Your task to perform on an android device: delete browsing data in the chrome app Image 0: 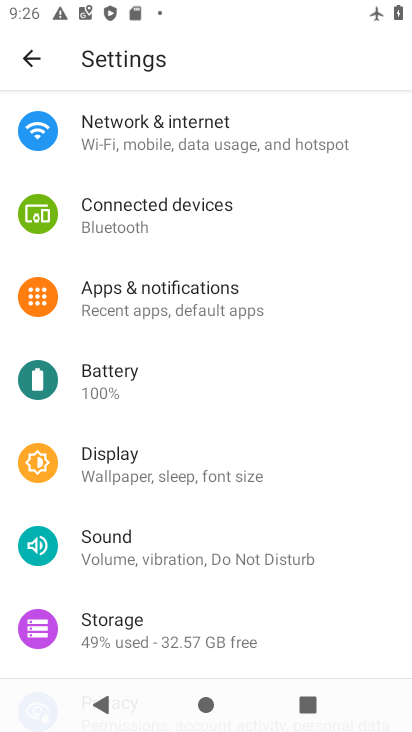
Step 0: press home button
Your task to perform on an android device: delete browsing data in the chrome app Image 1: 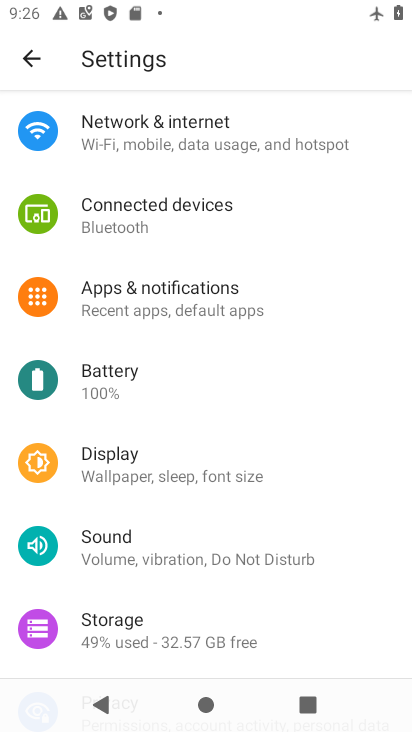
Step 1: press home button
Your task to perform on an android device: delete browsing data in the chrome app Image 2: 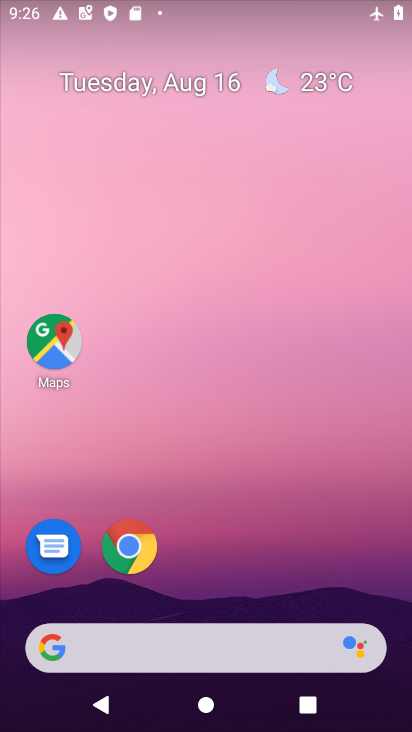
Step 2: click (127, 542)
Your task to perform on an android device: delete browsing data in the chrome app Image 3: 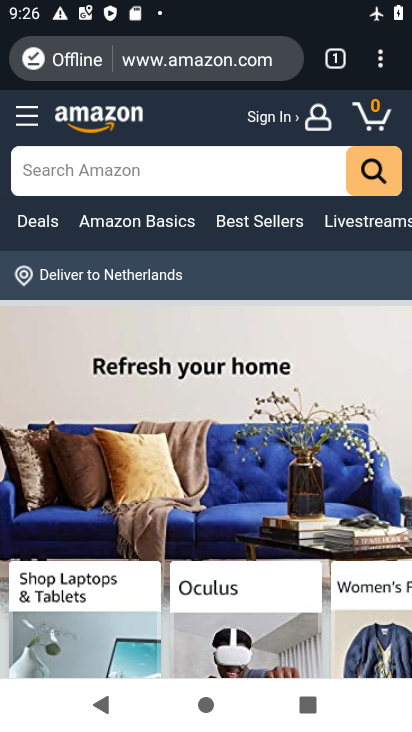
Step 3: click (379, 71)
Your task to perform on an android device: delete browsing data in the chrome app Image 4: 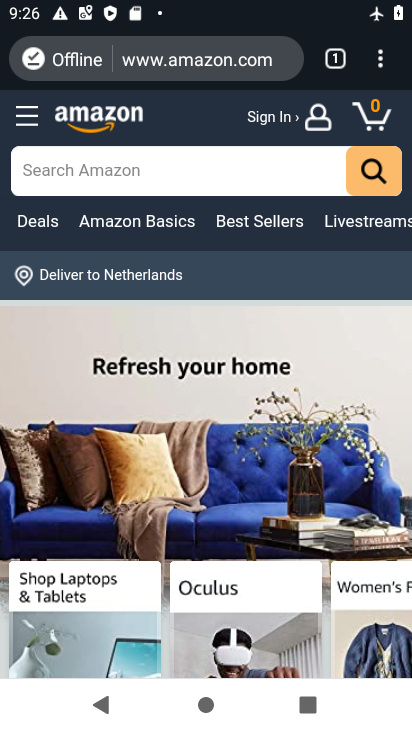
Step 4: click (379, 71)
Your task to perform on an android device: delete browsing data in the chrome app Image 5: 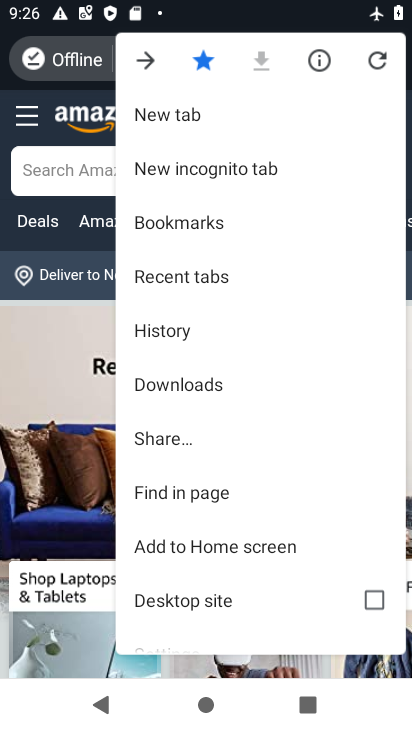
Step 5: click (164, 324)
Your task to perform on an android device: delete browsing data in the chrome app Image 6: 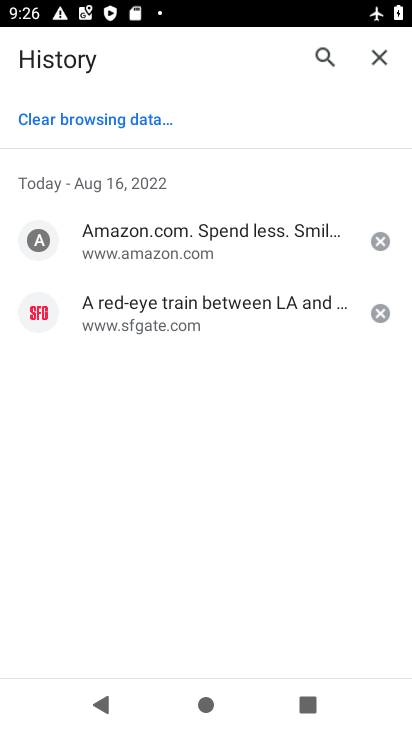
Step 6: click (108, 118)
Your task to perform on an android device: delete browsing data in the chrome app Image 7: 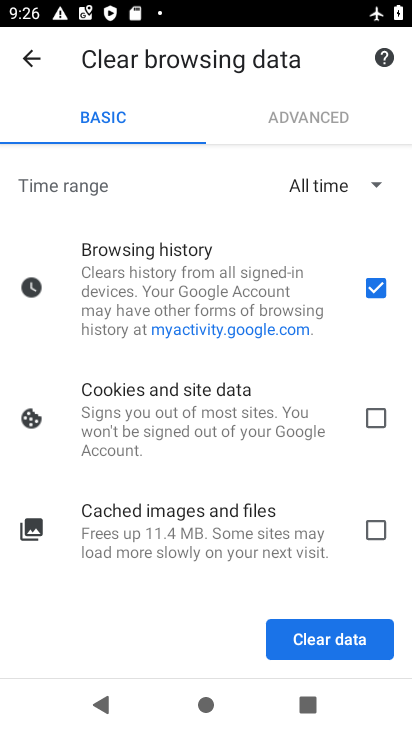
Step 7: click (372, 413)
Your task to perform on an android device: delete browsing data in the chrome app Image 8: 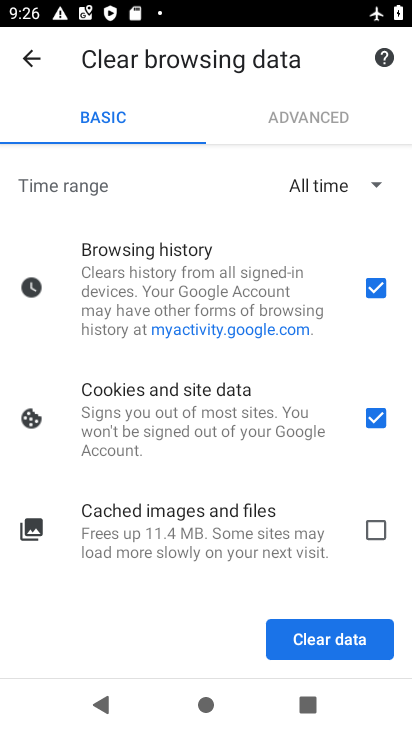
Step 8: click (376, 519)
Your task to perform on an android device: delete browsing data in the chrome app Image 9: 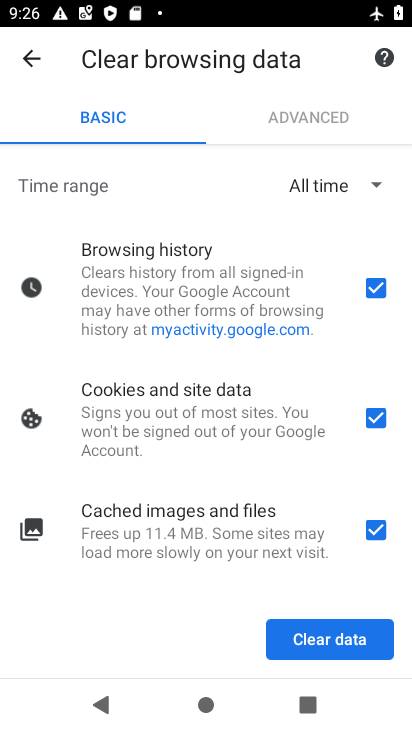
Step 9: click (328, 637)
Your task to perform on an android device: delete browsing data in the chrome app Image 10: 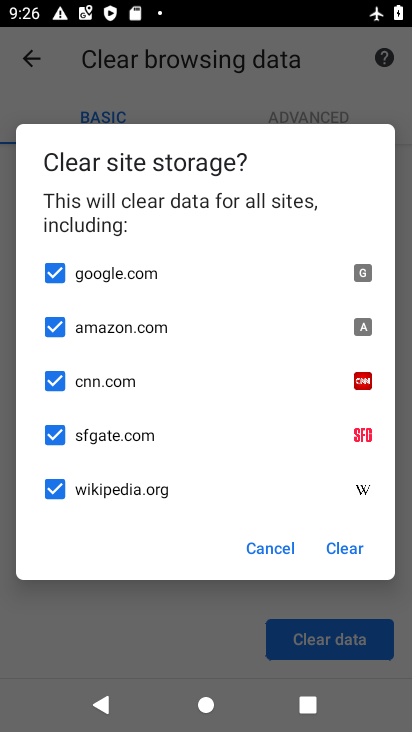
Step 10: click (342, 550)
Your task to perform on an android device: delete browsing data in the chrome app Image 11: 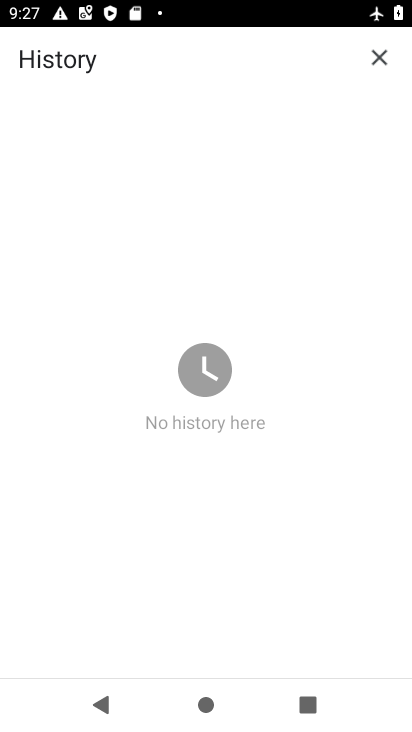
Step 11: task complete